Your task to perform on an android device: Open location settings Image 0: 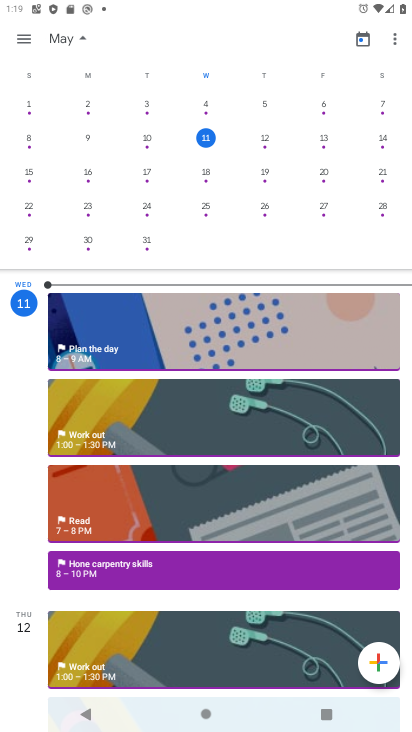
Step 0: press home button
Your task to perform on an android device: Open location settings Image 1: 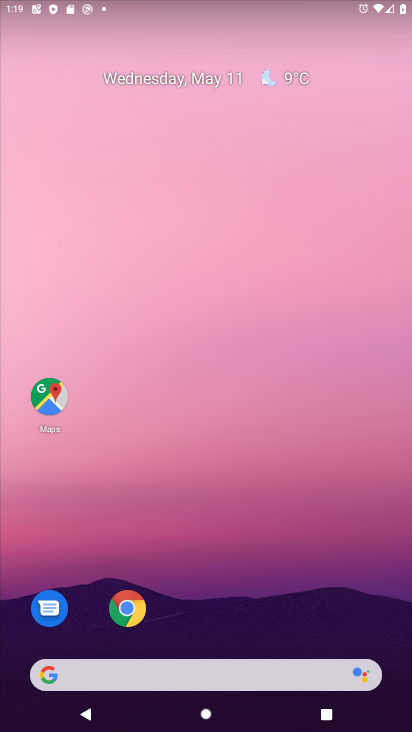
Step 1: drag from (342, 596) to (324, 243)
Your task to perform on an android device: Open location settings Image 2: 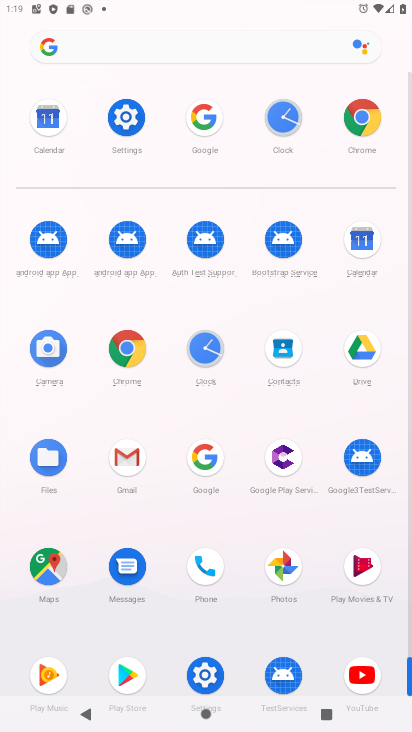
Step 2: click (134, 129)
Your task to perform on an android device: Open location settings Image 3: 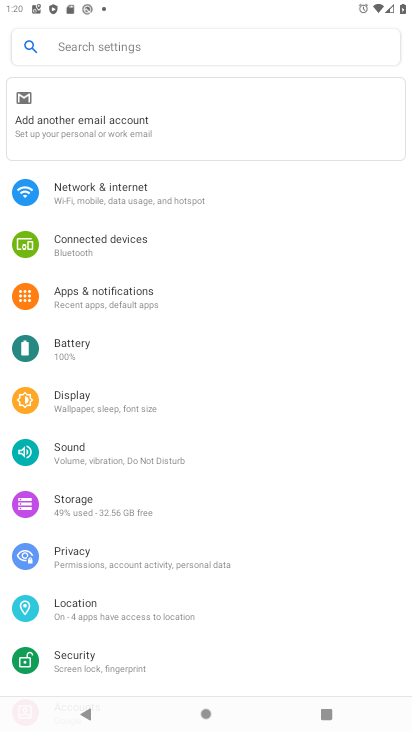
Step 3: click (160, 616)
Your task to perform on an android device: Open location settings Image 4: 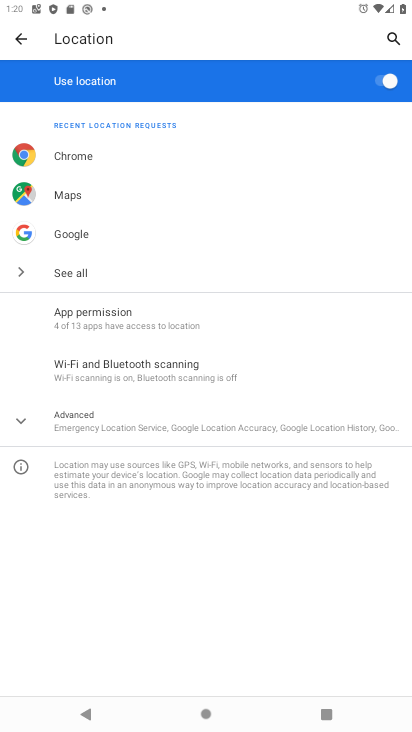
Step 4: task complete